Your task to perform on an android device: turn on bluetooth scan Image 0: 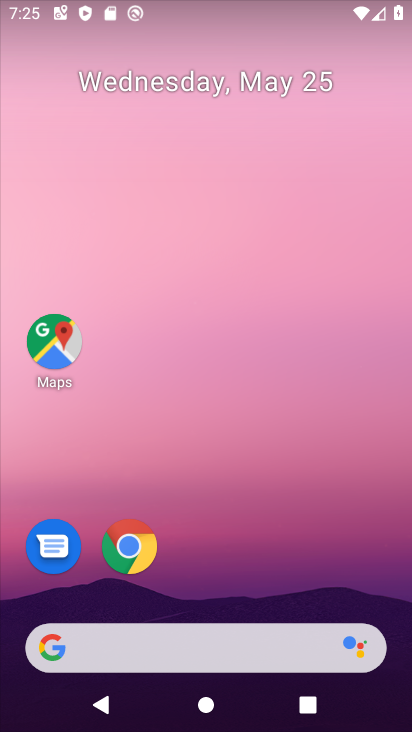
Step 0: press home button
Your task to perform on an android device: turn on bluetooth scan Image 1: 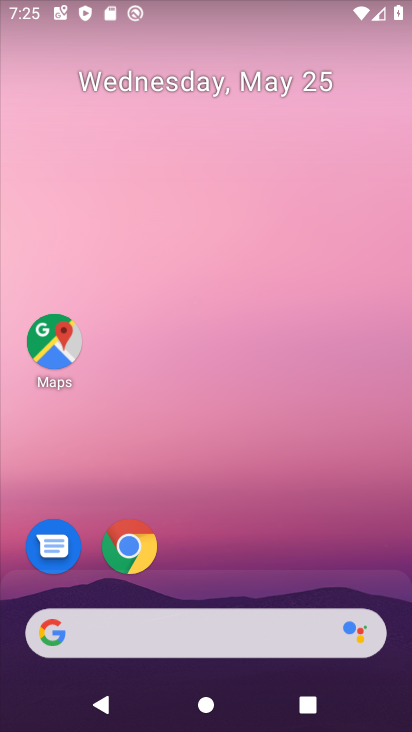
Step 1: drag from (237, 652) to (409, 51)
Your task to perform on an android device: turn on bluetooth scan Image 2: 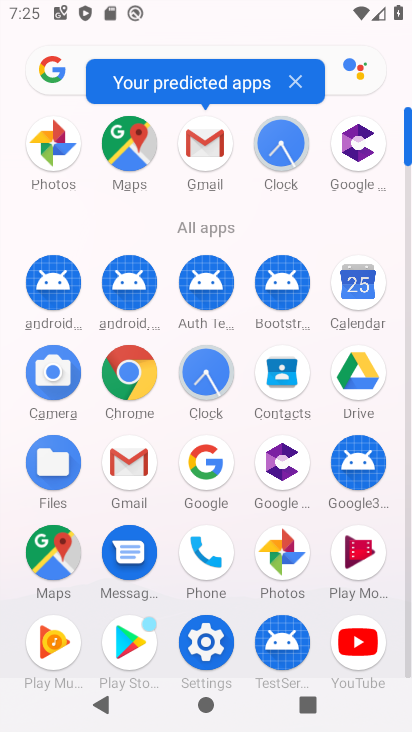
Step 2: click (202, 653)
Your task to perform on an android device: turn on bluetooth scan Image 3: 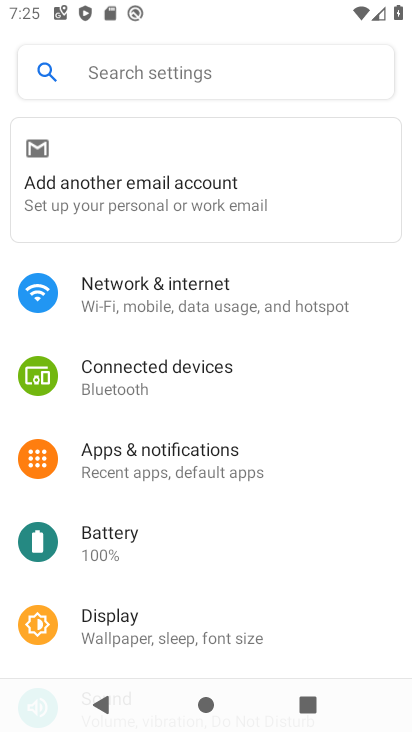
Step 3: drag from (237, 570) to (374, 241)
Your task to perform on an android device: turn on bluetooth scan Image 4: 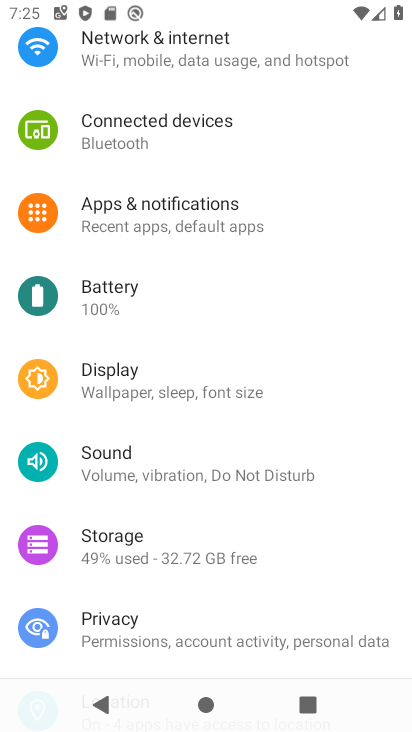
Step 4: drag from (251, 595) to (381, 349)
Your task to perform on an android device: turn on bluetooth scan Image 5: 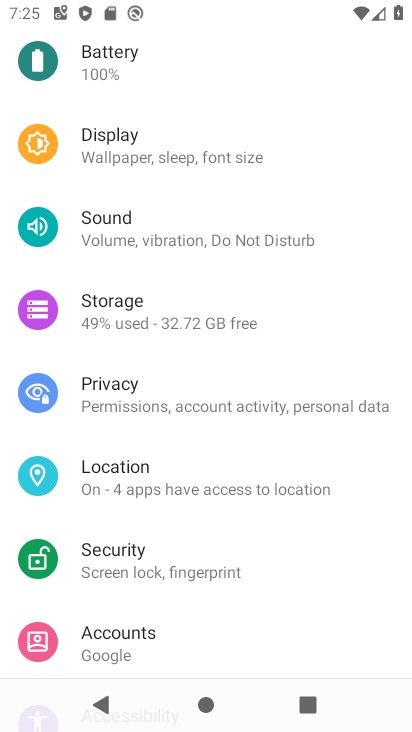
Step 5: click (202, 486)
Your task to perform on an android device: turn on bluetooth scan Image 6: 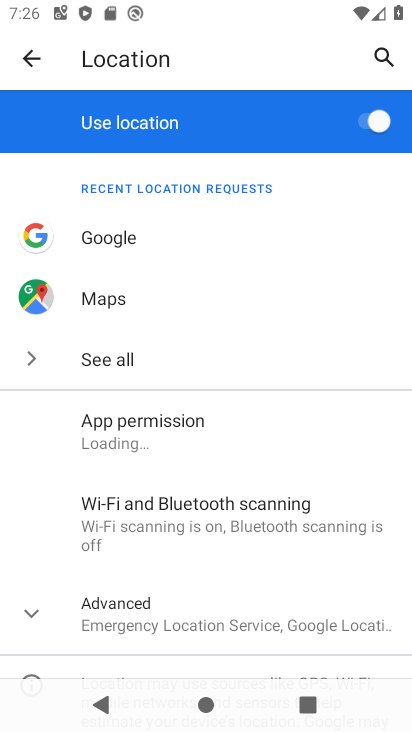
Step 6: click (181, 523)
Your task to perform on an android device: turn on bluetooth scan Image 7: 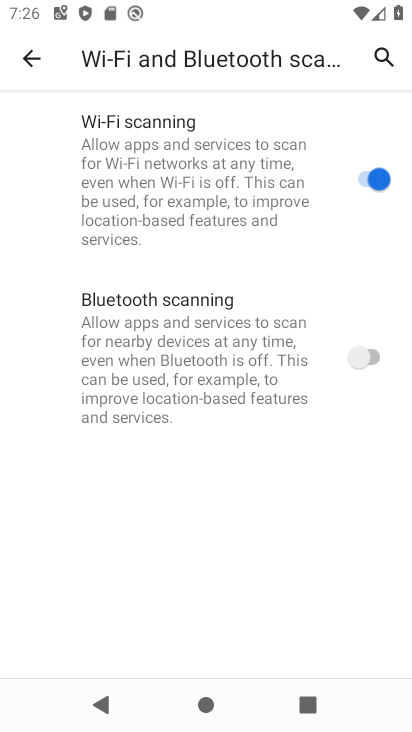
Step 7: click (370, 350)
Your task to perform on an android device: turn on bluetooth scan Image 8: 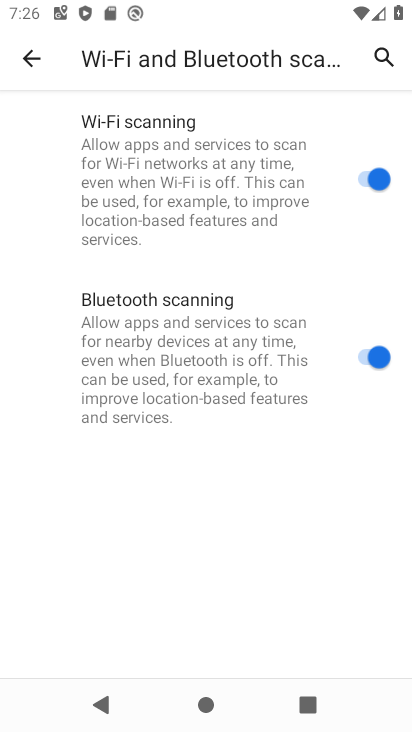
Step 8: task complete